Your task to perform on an android device: turn on location history Image 0: 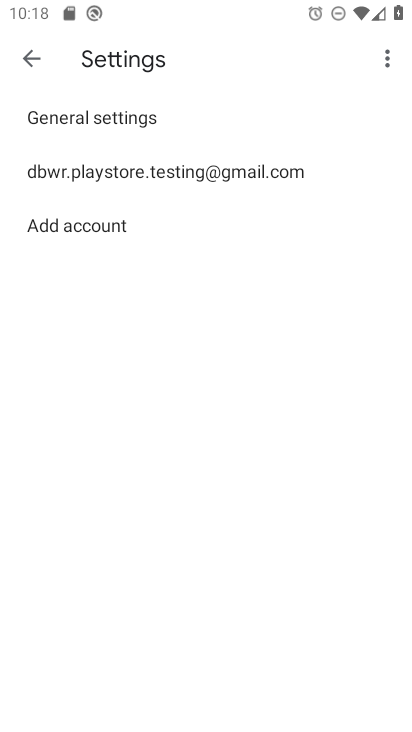
Step 0: press home button
Your task to perform on an android device: turn on location history Image 1: 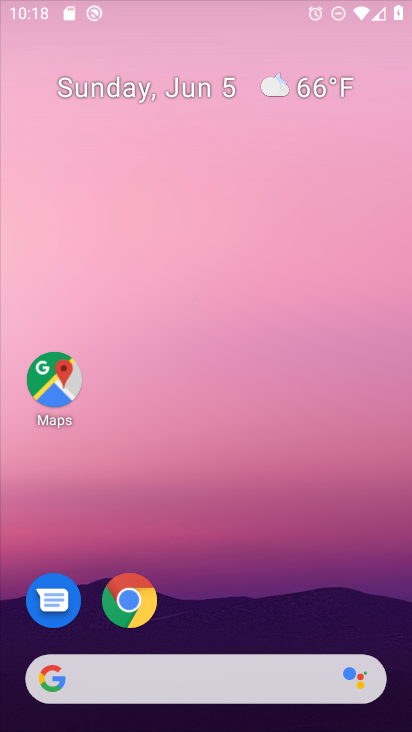
Step 1: drag from (387, 646) to (204, 25)
Your task to perform on an android device: turn on location history Image 2: 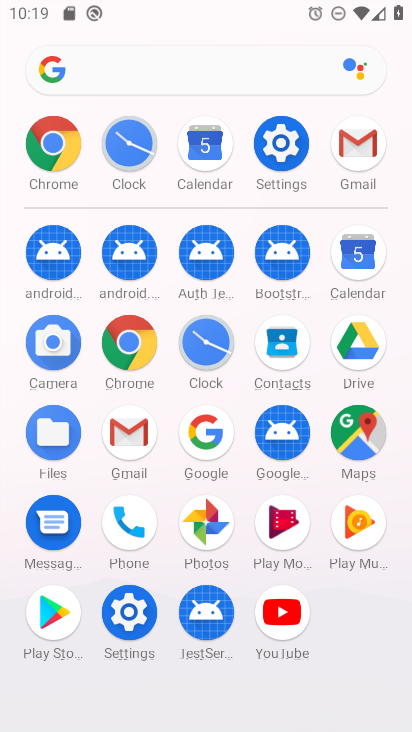
Step 2: click (148, 621)
Your task to perform on an android device: turn on location history Image 3: 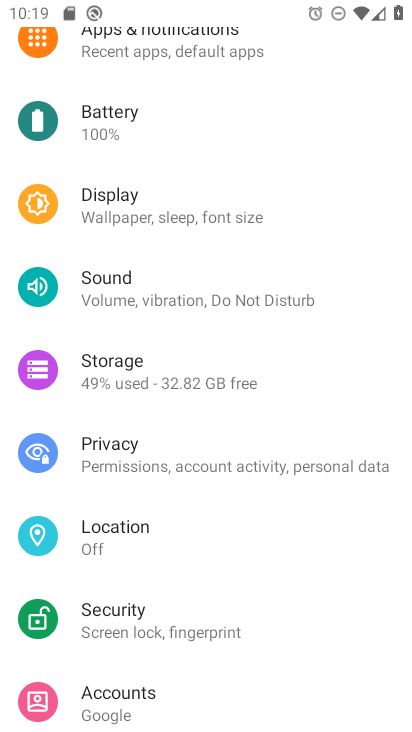
Step 3: click (150, 552)
Your task to perform on an android device: turn on location history Image 4: 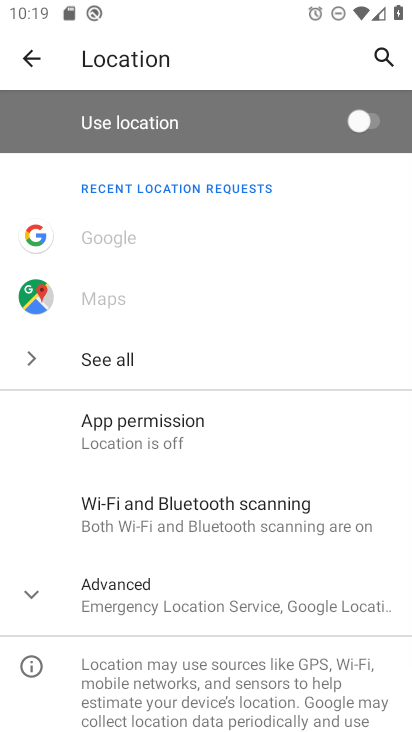
Step 4: click (192, 586)
Your task to perform on an android device: turn on location history Image 5: 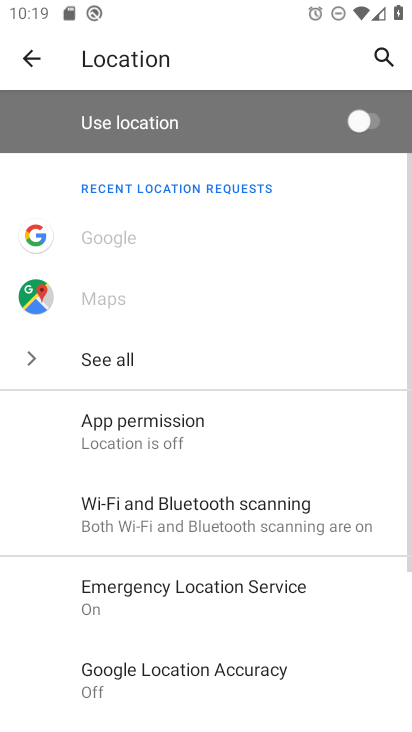
Step 5: drag from (162, 685) to (173, 310)
Your task to perform on an android device: turn on location history Image 6: 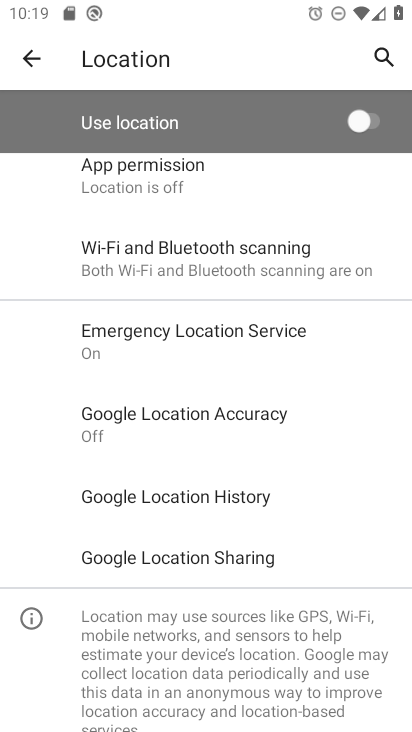
Step 6: click (168, 485)
Your task to perform on an android device: turn on location history Image 7: 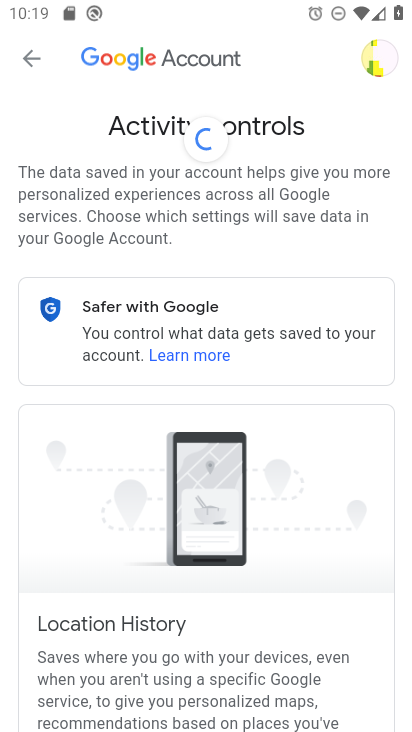
Step 7: click (322, 603)
Your task to perform on an android device: turn on location history Image 8: 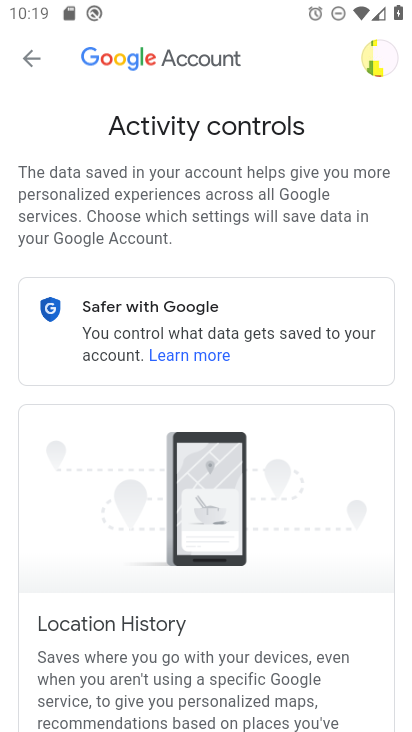
Step 8: task complete